Your task to perform on an android device: turn notification dots off Image 0: 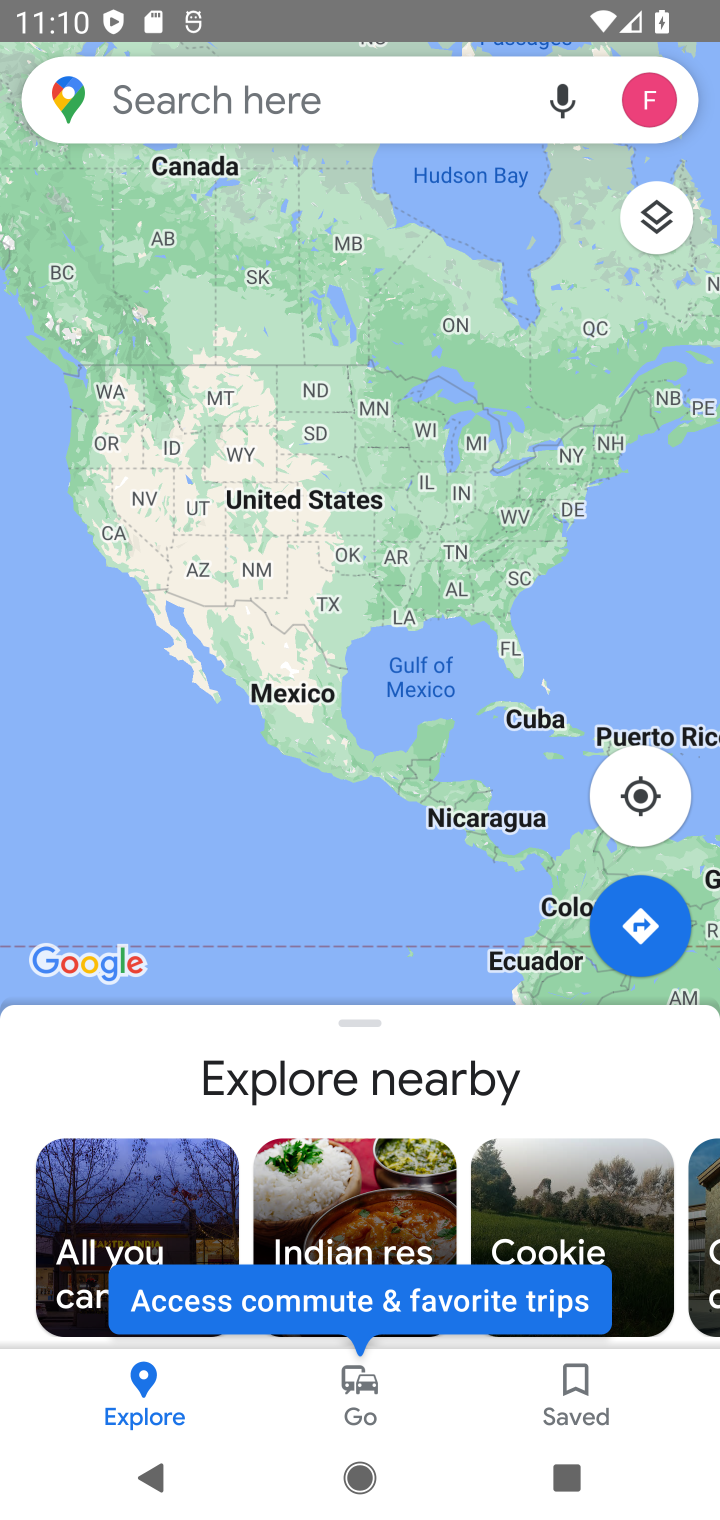
Step 0: press home button
Your task to perform on an android device: turn notification dots off Image 1: 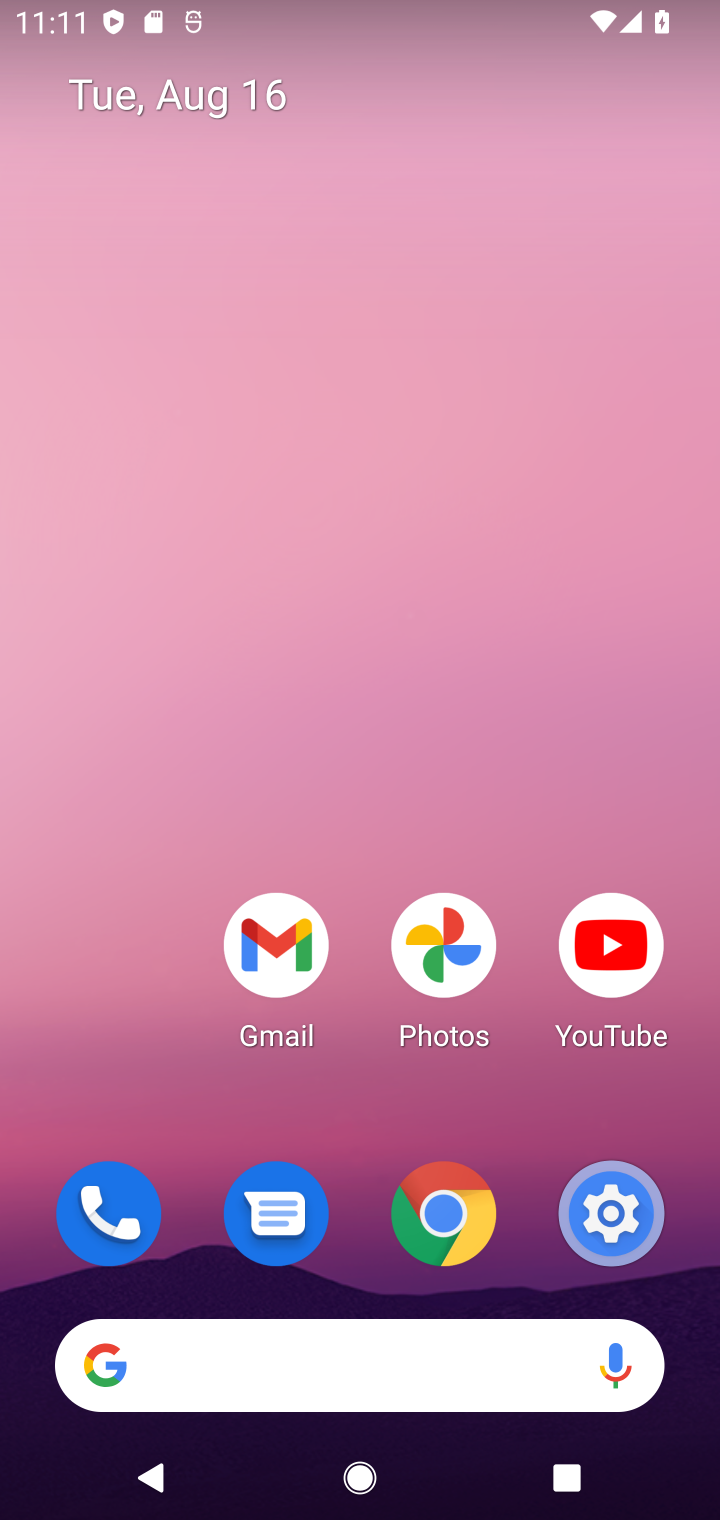
Step 1: drag from (339, 1103) to (413, 113)
Your task to perform on an android device: turn notification dots off Image 2: 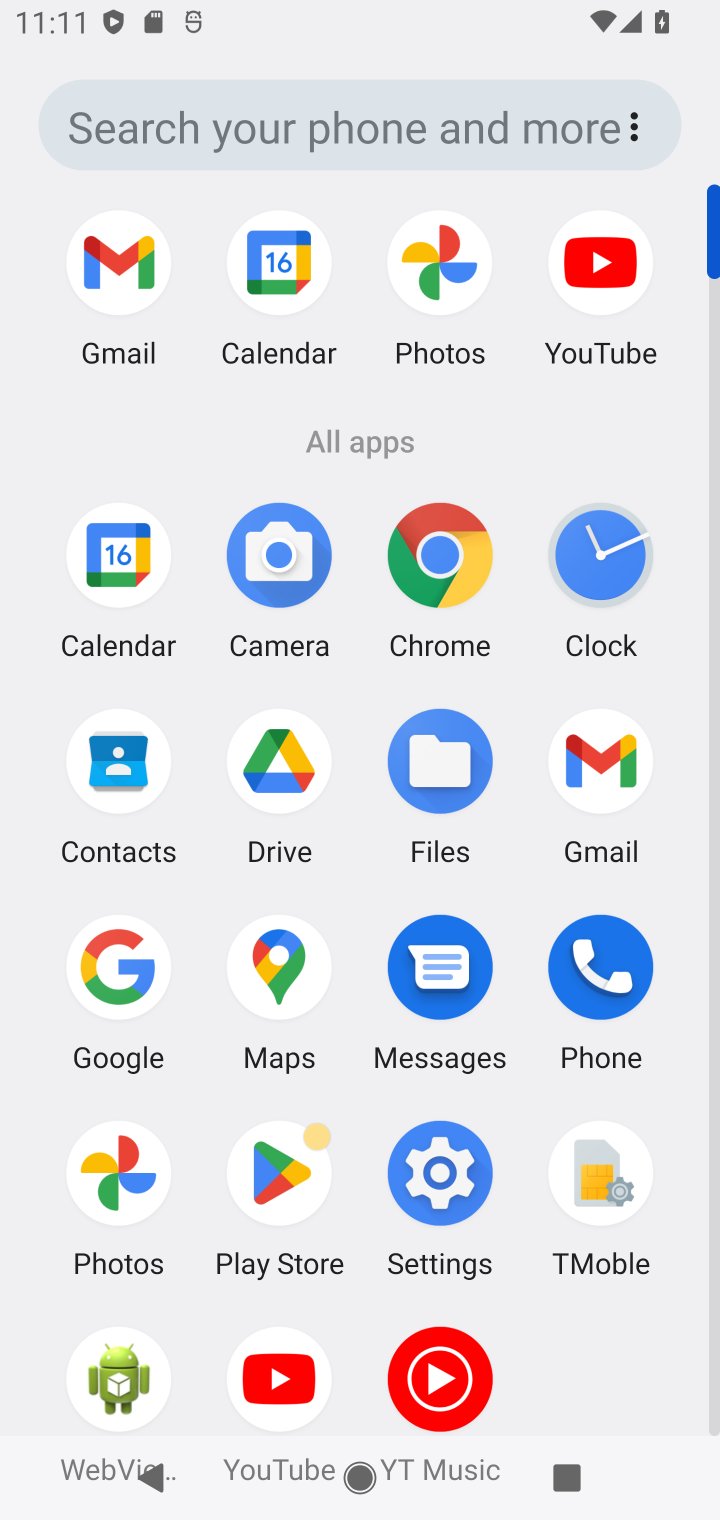
Step 2: click (449, 1155)
Your task to perform on an android device: turn notification dots off Image 3: 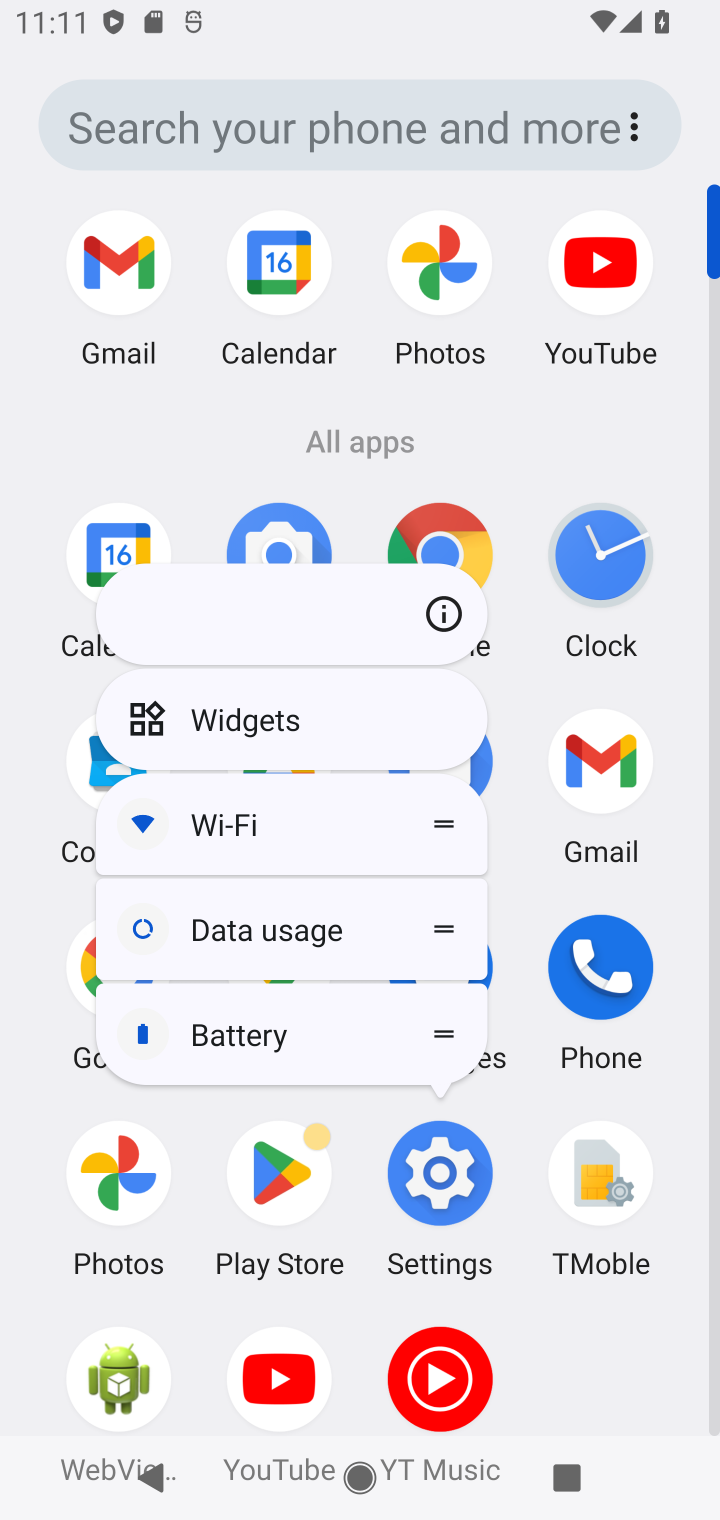
Step 3: click (448, 1186)
Your task to perform on an android device: turn notification dots off Image 4: 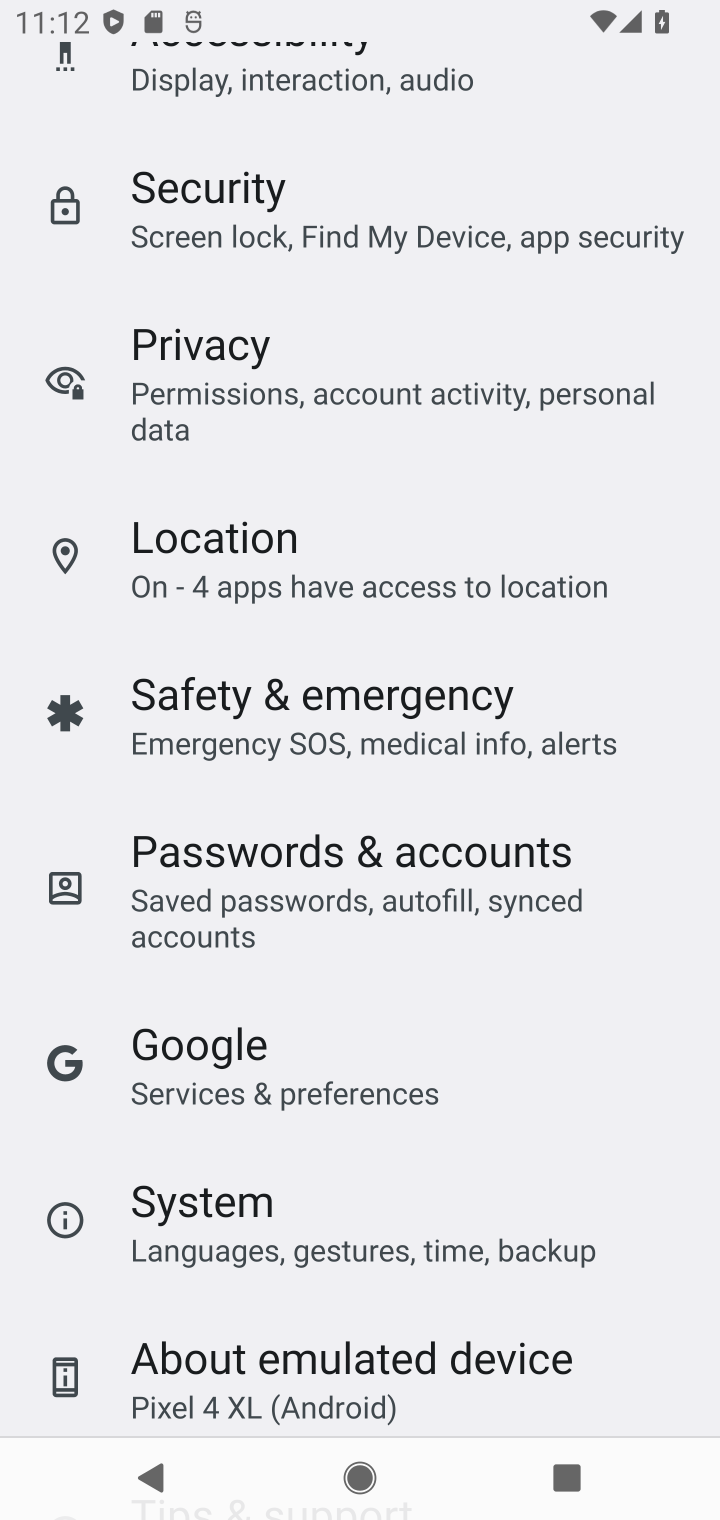
Step 4: drag from (395, 367) to (426, 1377)
Your task to perform on an android device: turn notification dots off Image 5: 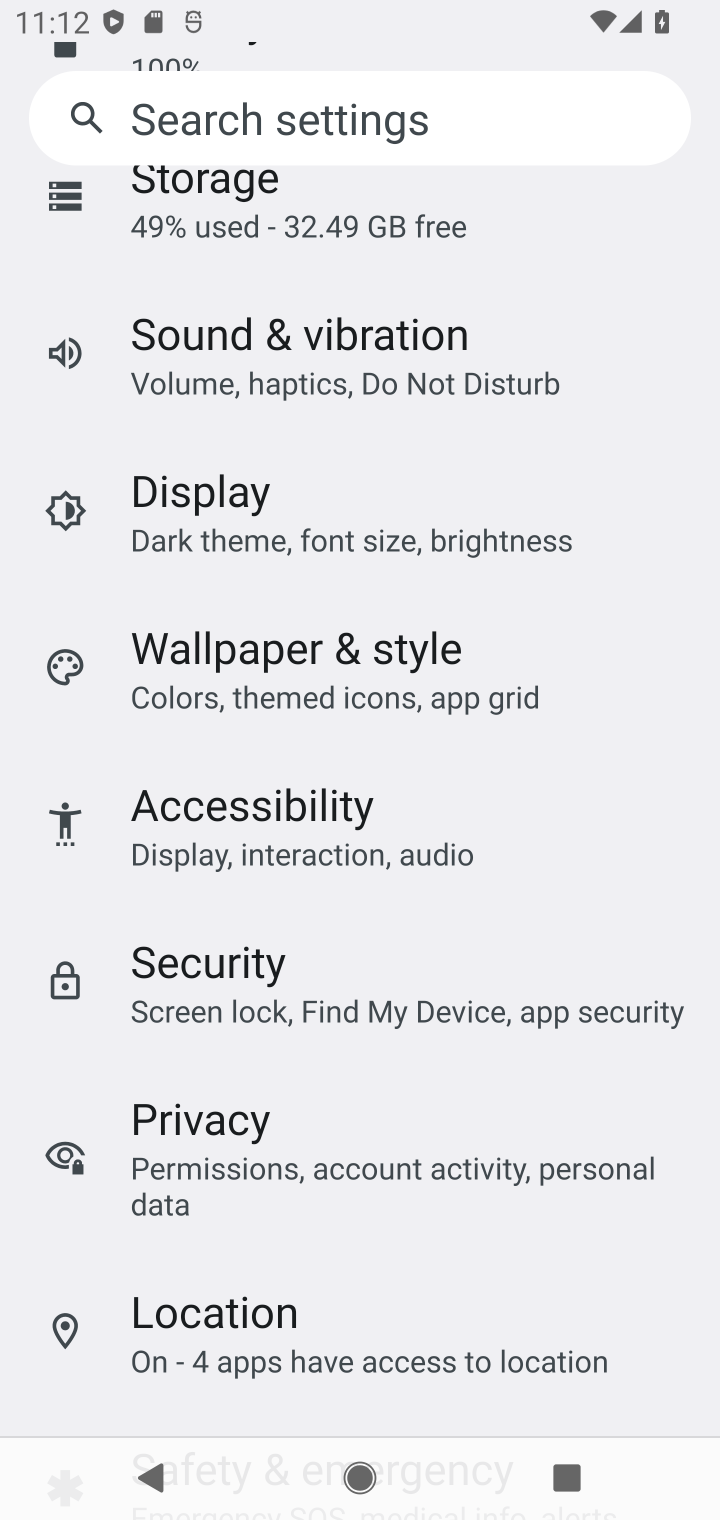
Step 5: drag from (492, 308) to (450, 1331)
Your task to perform on an android device: turn notification dots off Image 6: 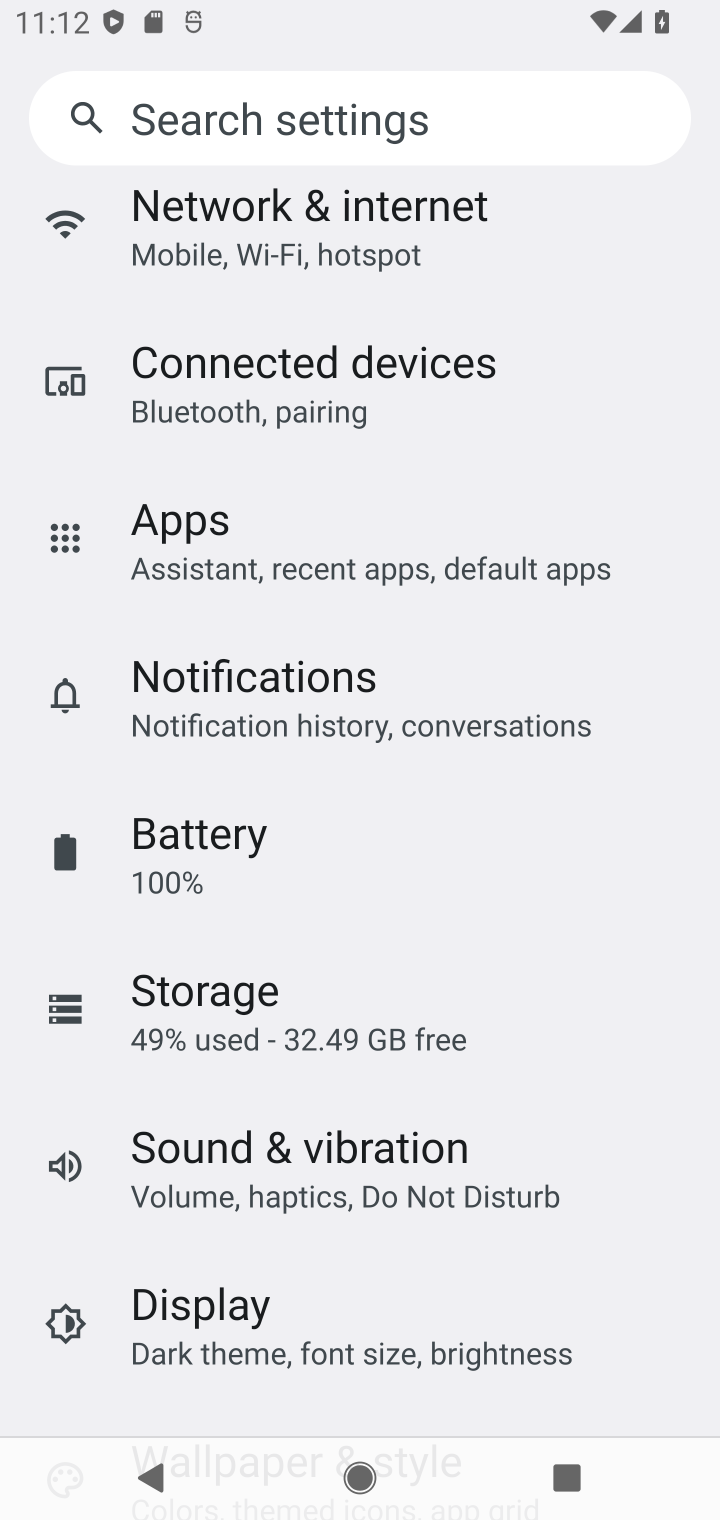
Step 6: click (308, 711)
Your task to perform on an android device: turn notification dots off Image 7: 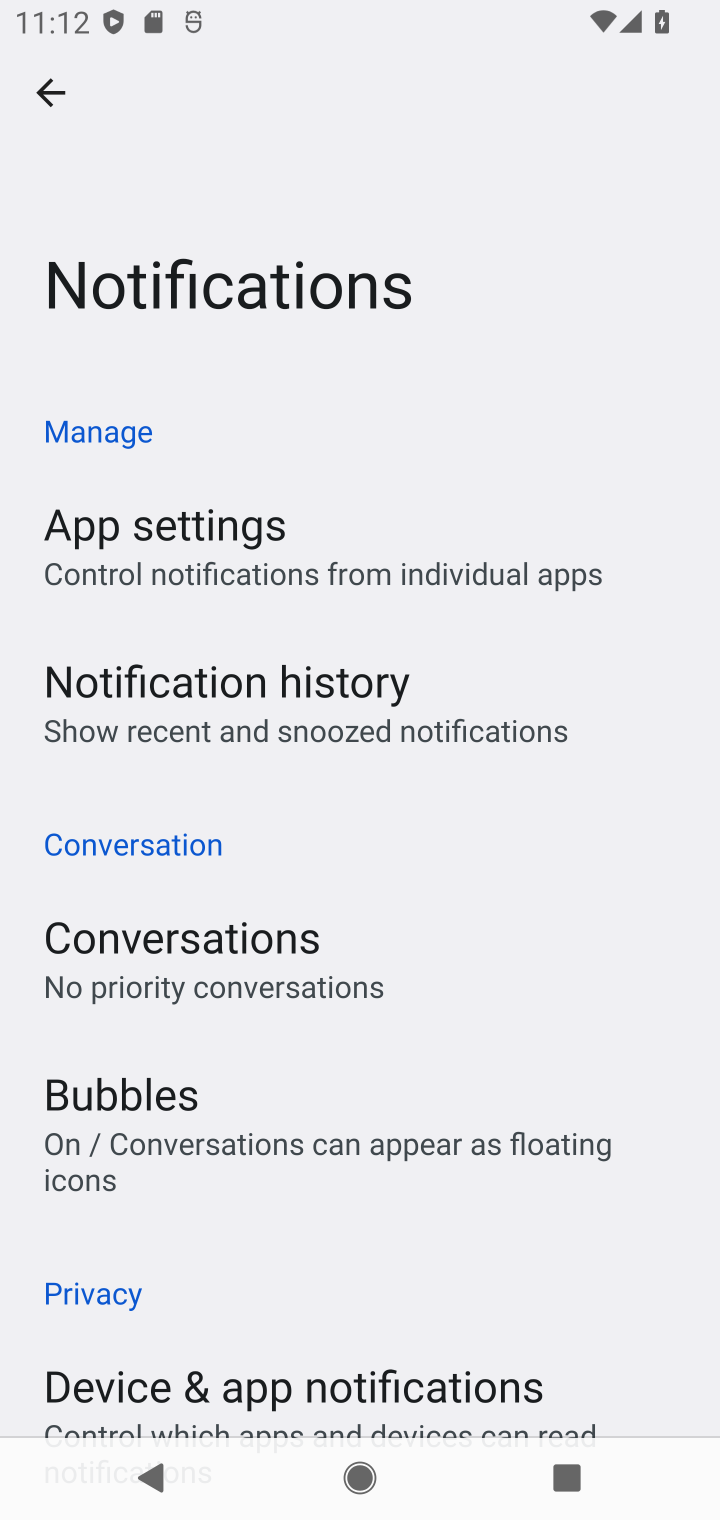
Step 7: drag from (422, 1235) to (530, 0)
Your task to perform on an android device: turn notification dots off Image 8: 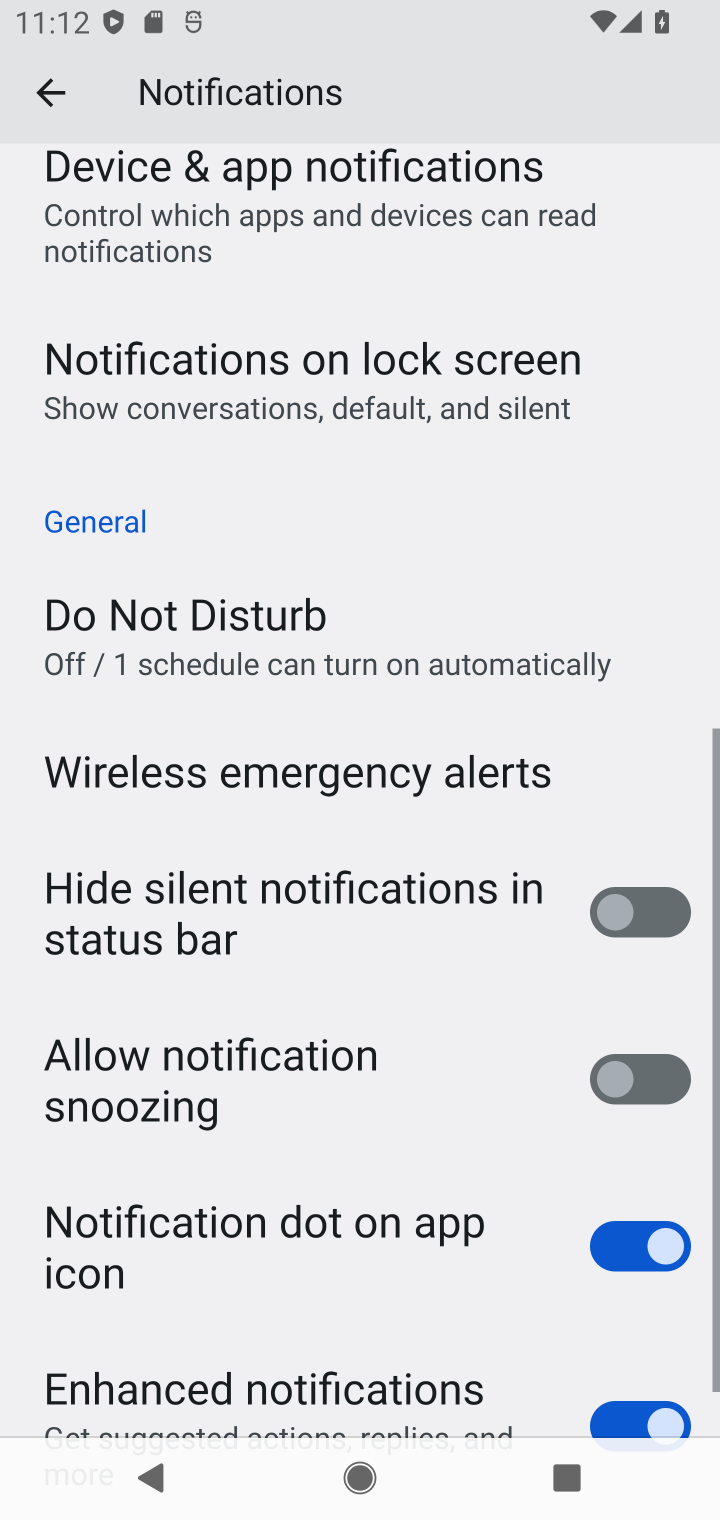
Step 8: drag from (425, 1076) to (511, 436)
Your task to perform on an android device: turn notification dots off Image 9: 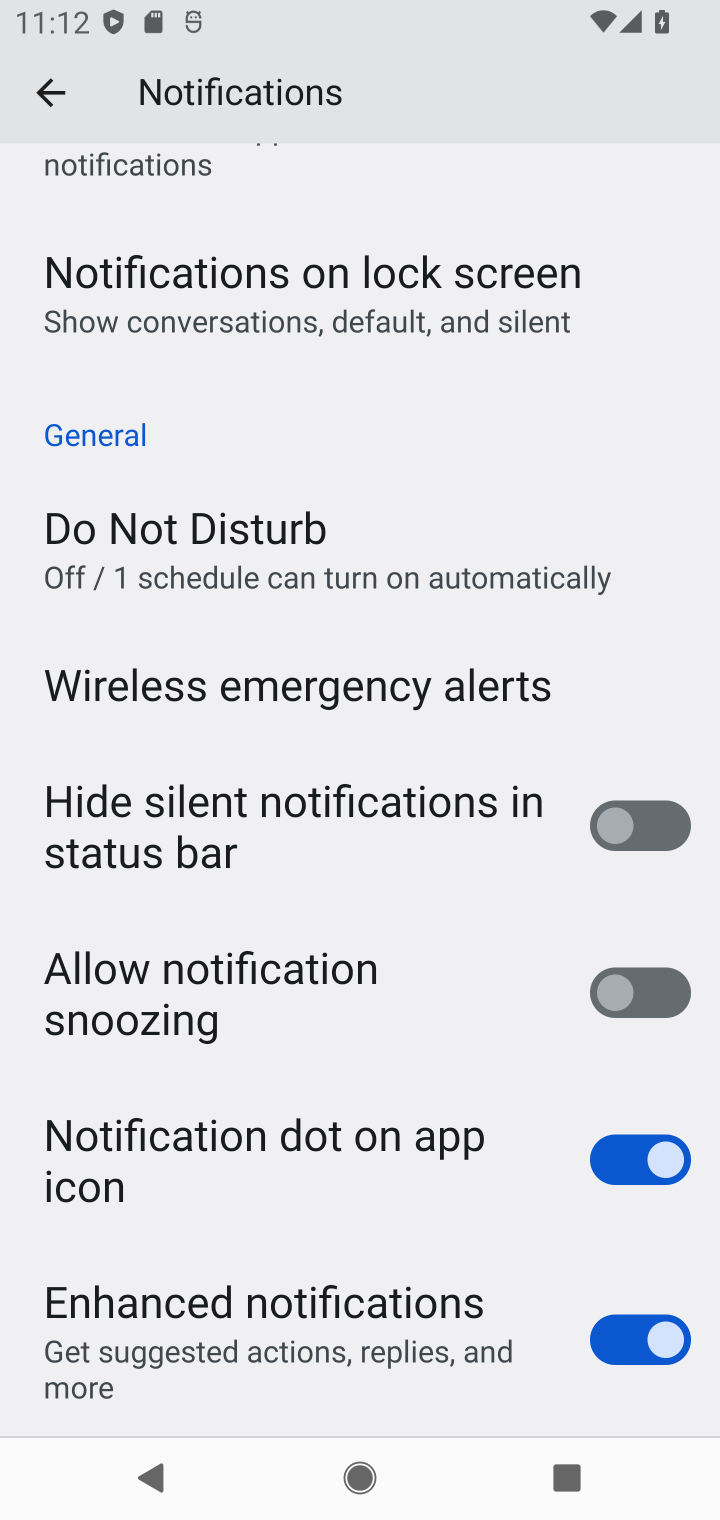
Step 9: click (643, 1151)
Your task to perform on an android device: turn notification dots off Image 10: 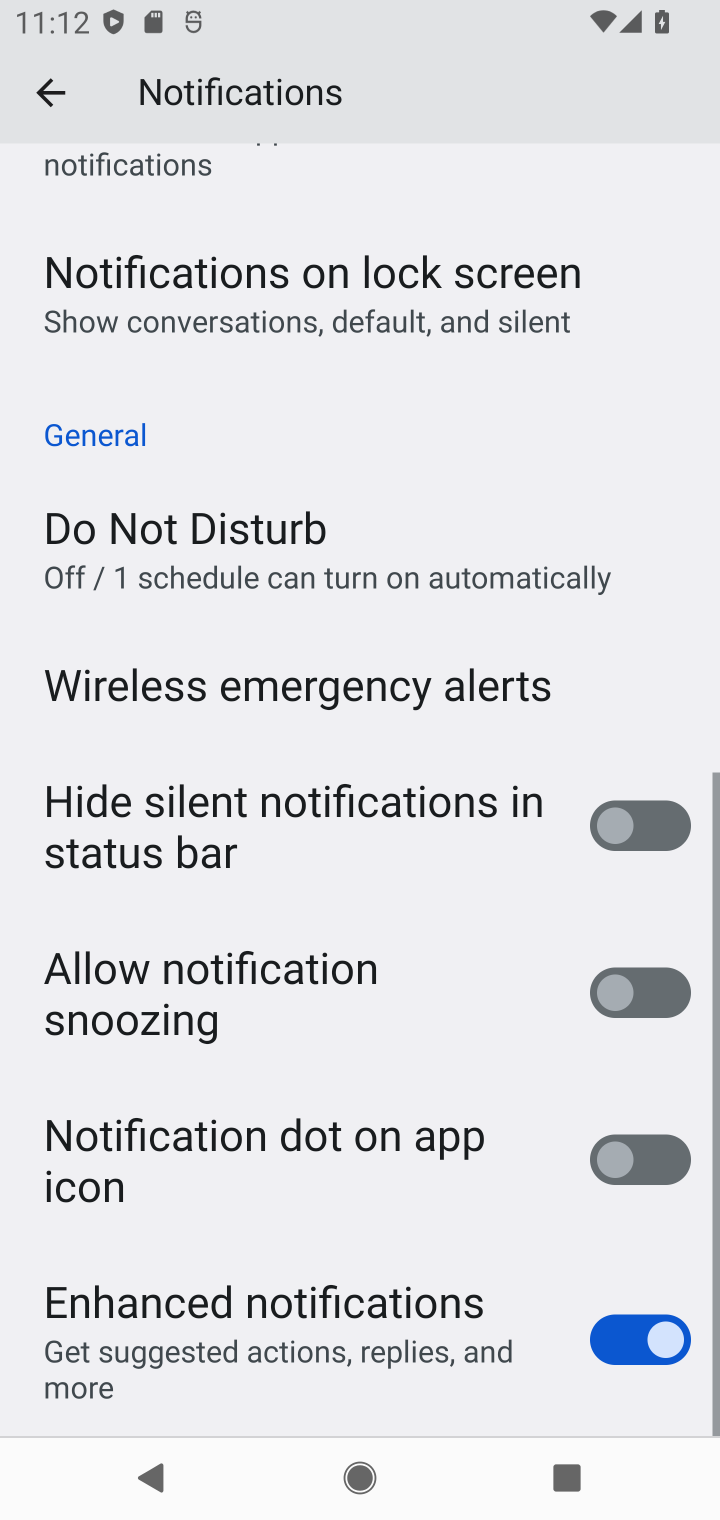
Step 10: task complete